Your task to perform on an android device: Go to settings Image 0: 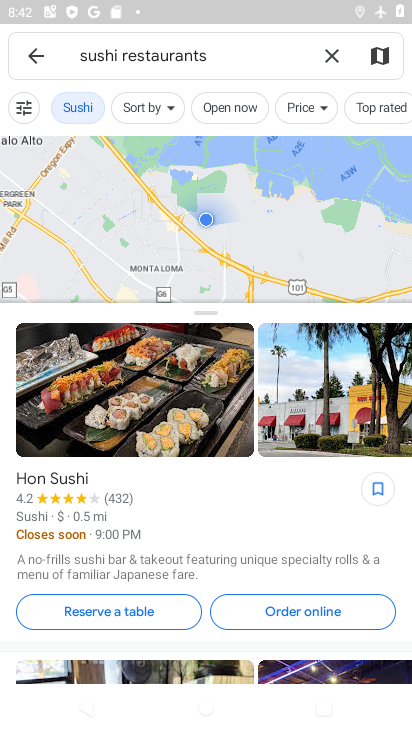
Step 0: press home button
Your task to perform on an android device: Go to settings Image 1: 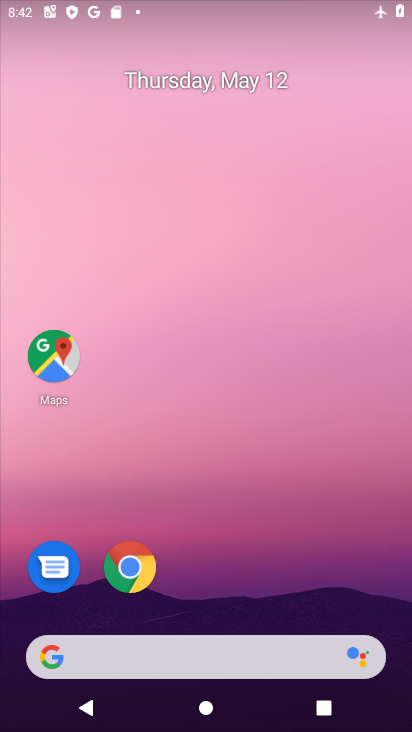
Step 1: drag from (233, 681) to (407, 27)
Your task to perform on an android device: Go to settings Image 2: 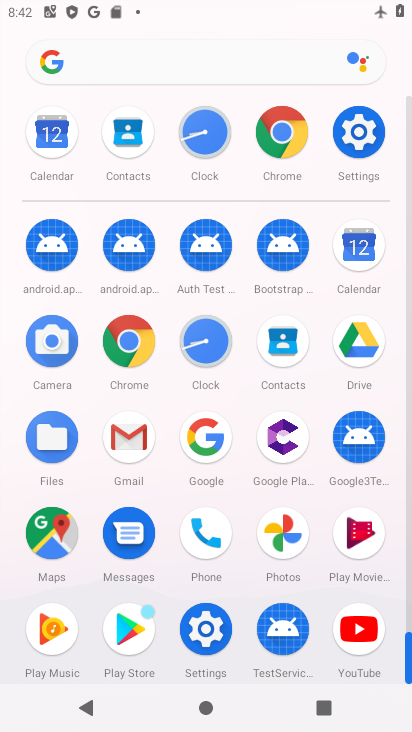
Step 2: click (358, 150)
Your task to perform on an android device: Go to settings Image 3: 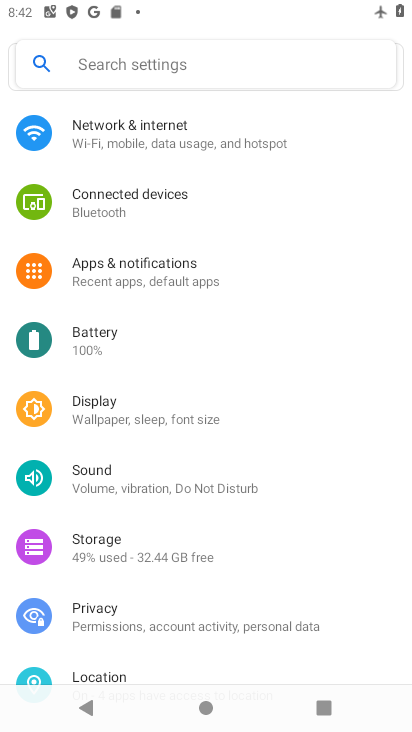
Step 3: task complete